Your task to perform on an android device: stop showing notifications on the lock screen Image 0: 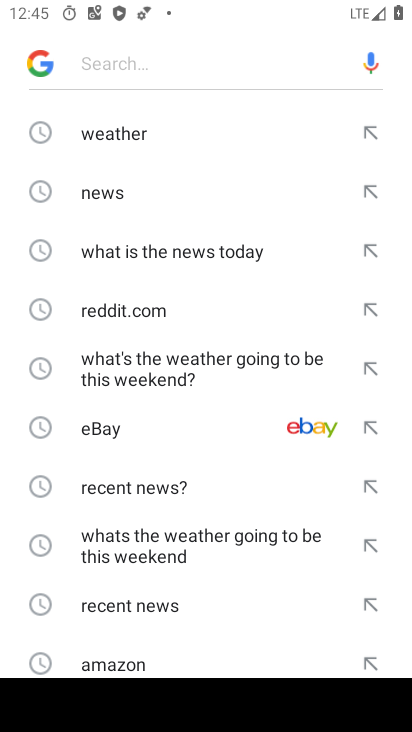
Step 0: press home button
Your task to perform on an android device: stop showing notifications on the lock screen Image 1: 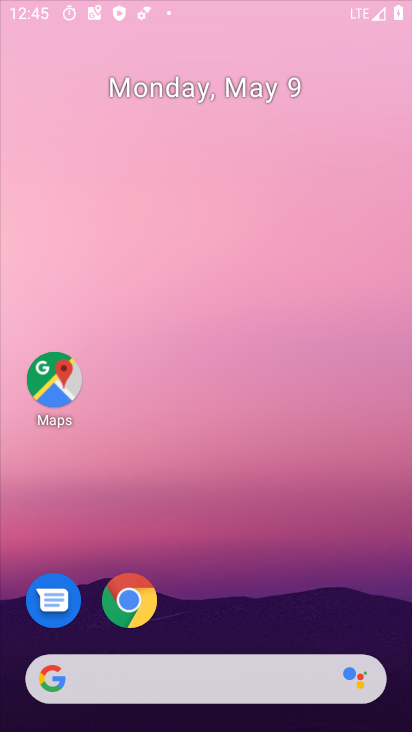
Step 1: drag from (266, 220) to (259, 38)
Your task to perform on an android device: stop showing notifications on the lock screen Image 2: 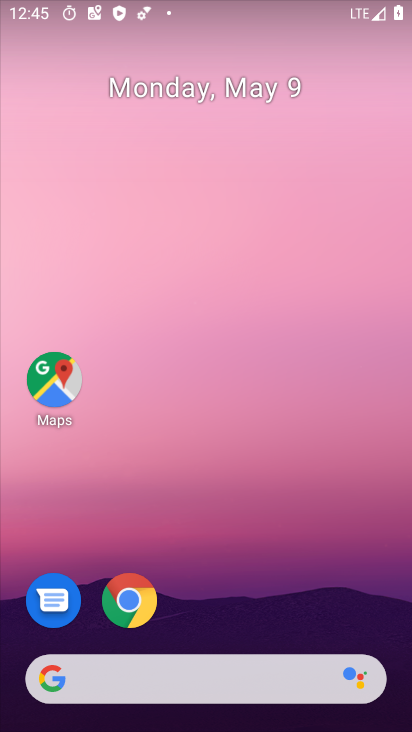
Step 2: drag from (260, 522) to (228, 18)
Your task to perform on an android device: stop showing notifications on the lock screen Image 3: 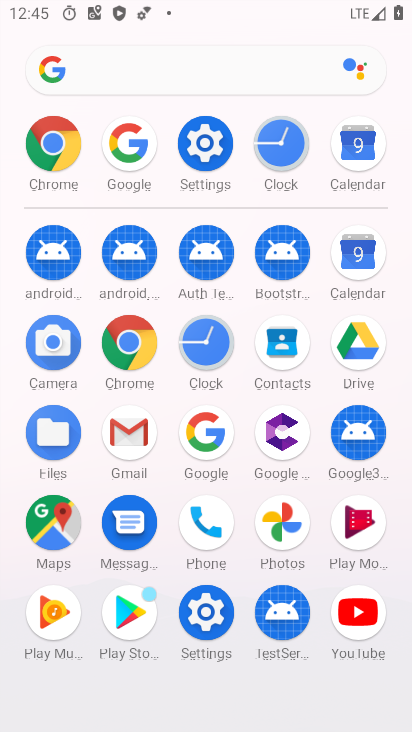
Step 3: click (205, 167)
Your task to perform on an android device: stop showing notifications on the lock screen Image 4: 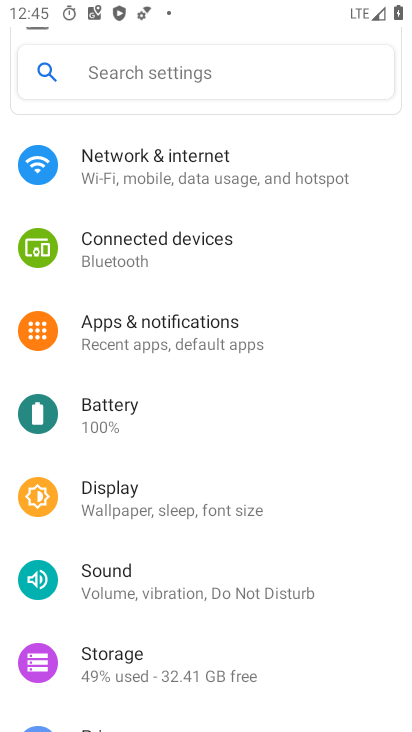
Step 4: click (204, 331)
Your task to perform on an android device: stop showing notifications on the lock screen Image 5: 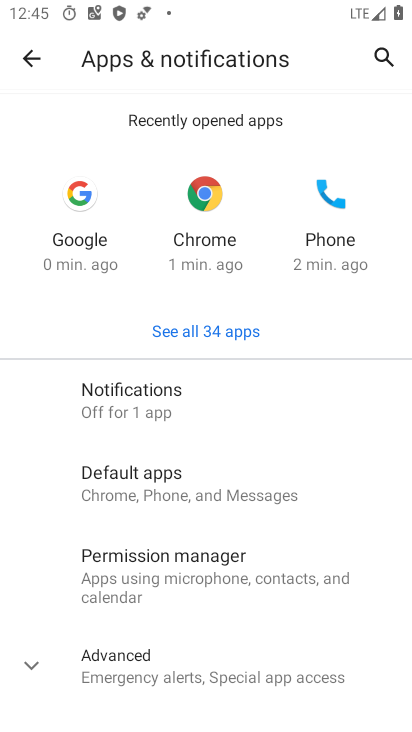
Step 5: click (231, 421)
Your task to perform on an android device: stop showing notifications on the lock screen Image 6: 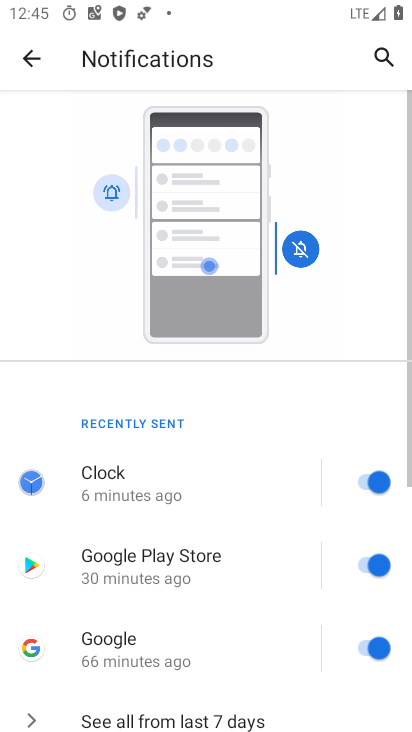
Step 6: drag from (181, 598) to (204, 118)
Your task to perform on an android device: stop showing notifications on the lock screen Image 7: 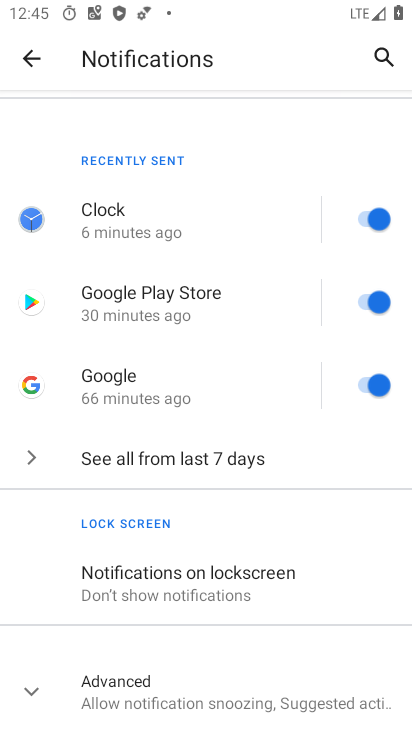
Step 7: click (180, 588)
Your task to perform on an android device: stop showing notifications on the lock screen Image 8: 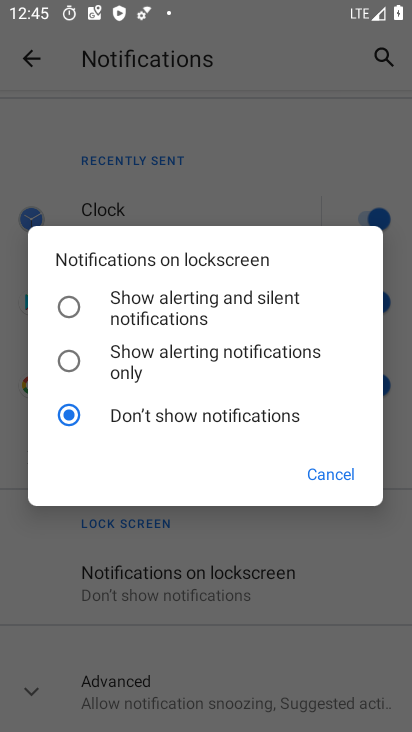
Step 8: task complete